Your task to perform on an android device: Check the settings for the YouTube app Image 0: 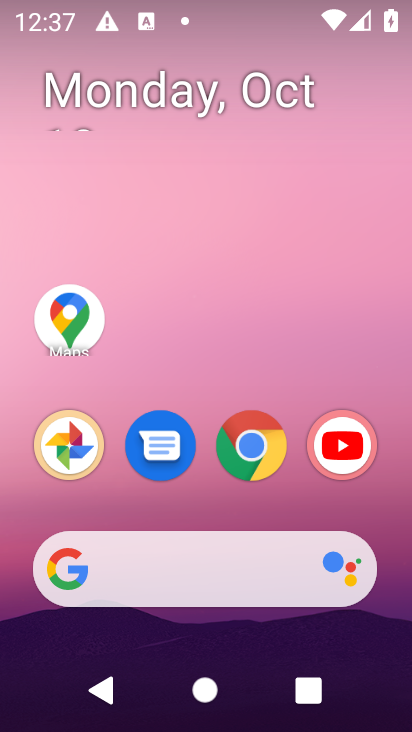
Step 0: click (58, 570)
Your task to perform on an android device: Check the settings for the YouTube app Image 1: 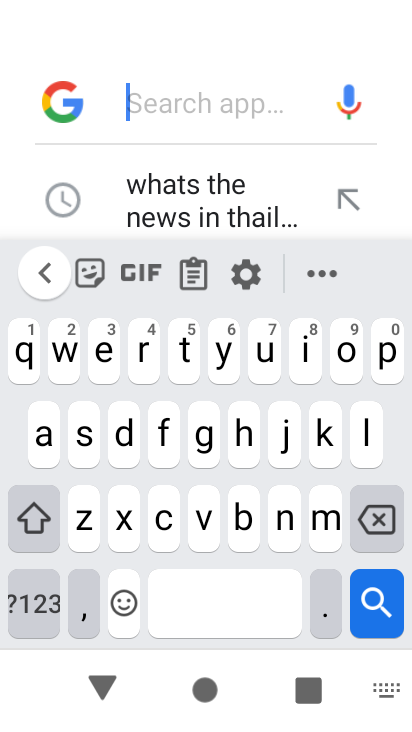
Step 1: press home button
Your task to perform on an android device: Check the settings for the YouTube app Image 2: 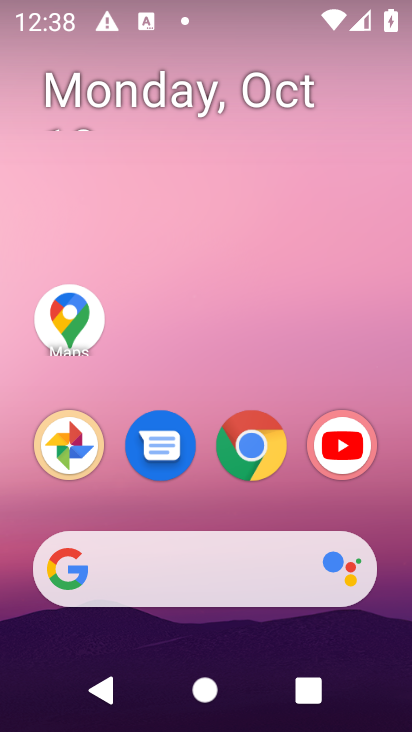
Step 2: click (335, 446)
Your task to perform on an android device: Check the settings for the YouTube app Image 3: 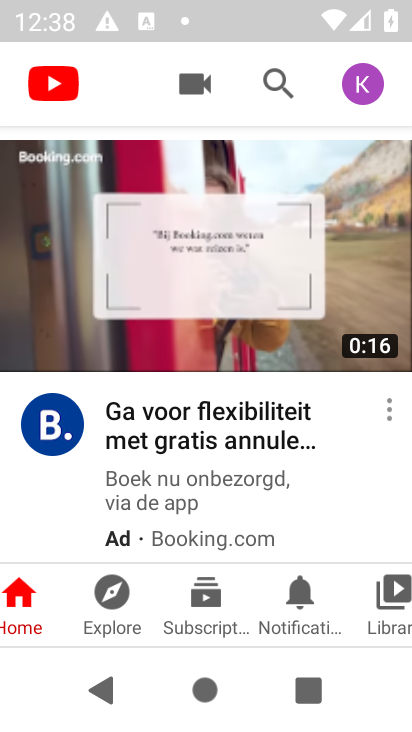
Step 3: click (365, 89)
Your task to perform on an android device: Check the settings for the YouTube app Image 4: 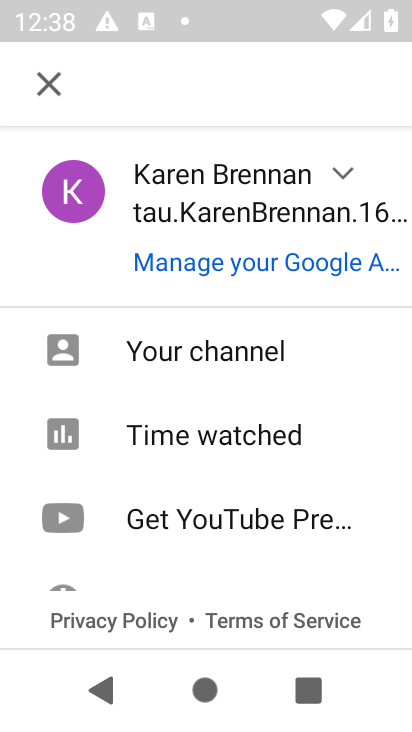
Step 4: drag from (279, 544) to (290, 344)
Your task to perform on an android device: Check the settings for the YouTube app Image 5: 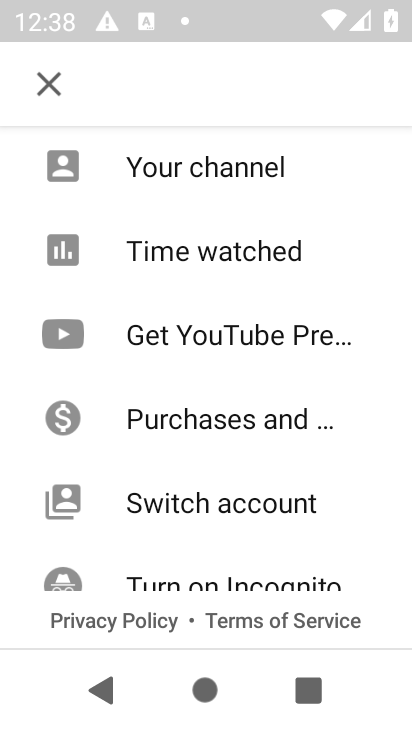
Step 5: drag from (238, 497) to (229, 218)
Your task to perform on an android device: Check the settings for the YouTube app Image 6: 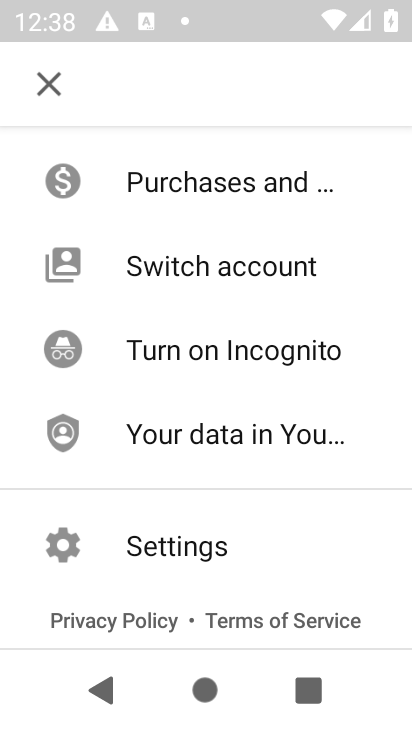
Step 6: click (164, 545)
Your task to perform on an android device: Check the settings for the YouTube app Image 7: 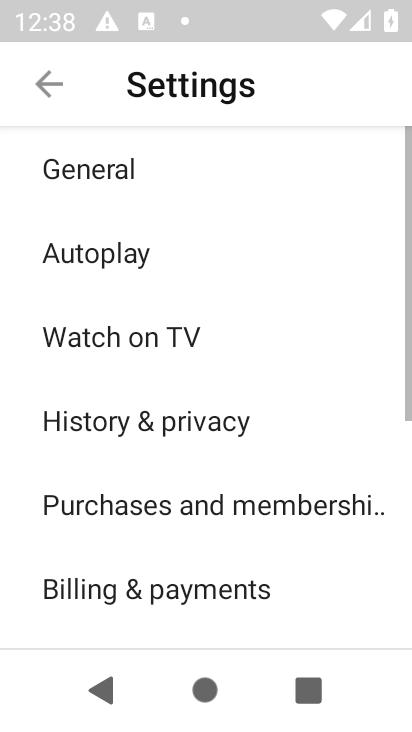
Step 7: click (91, 254)
Your task to perform on an android device: Check the settings for the YouTube app Image 8: 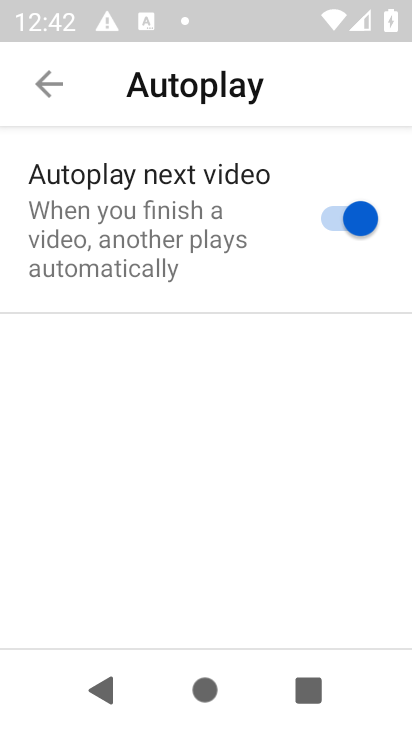
Step 8: task complete